Your task to perform on an android device: find snoozed emails in the gmail app Image 0: 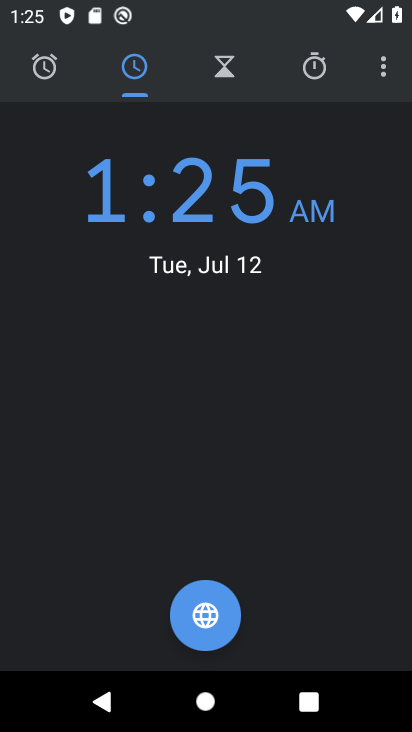
Step 0: press home button
Your task to perform on an android device: find snoozed emails in the gmail app Image 1: 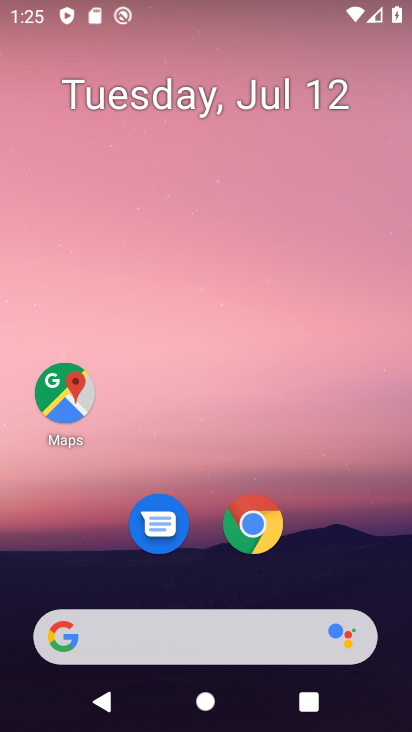
Step 1: drag from (303, 531) to (343, 44)
Your task to perform on an android device: find snoozed emails in the gmail app Image 2: 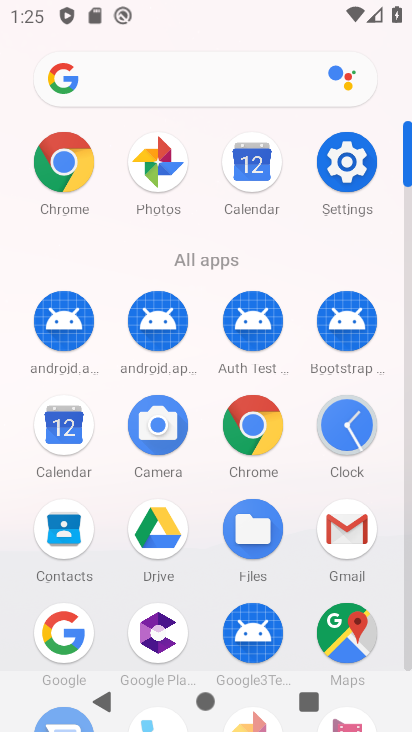
Step 2: click (344, 519)
Your task to perform on an android device: find snoozed emails in the gmail app Image 3: 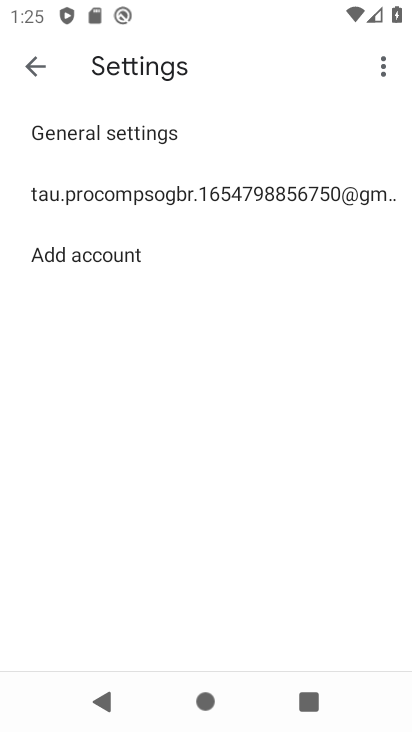
Step 3: click (38, 53)
Your task to perform on an android device: find snoozed emails in the gmail app Image 4: 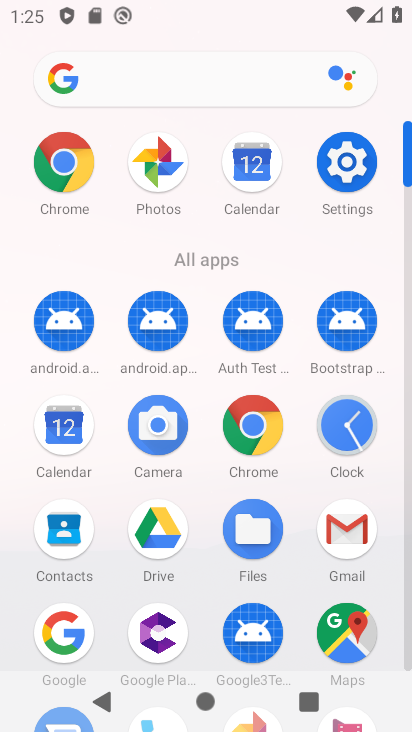
Step 4: click (336, 537)
Your task to perform on an android device: find snoozed emails in the gmail app Image 5: 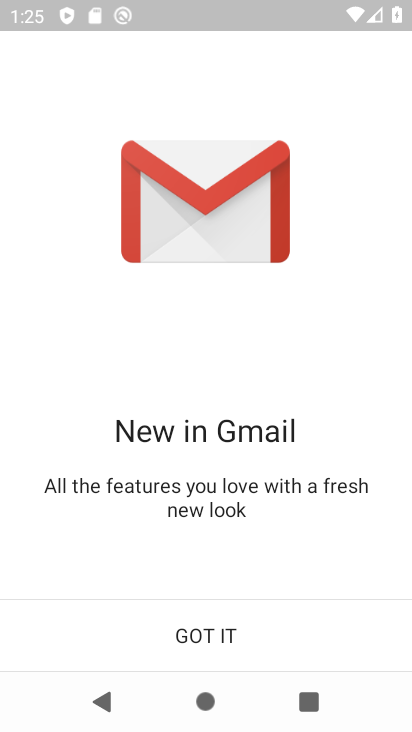
Step 5: click (266, 629)
Your task to perform on an android device: find snoozed emails in the gmail app Image 6: 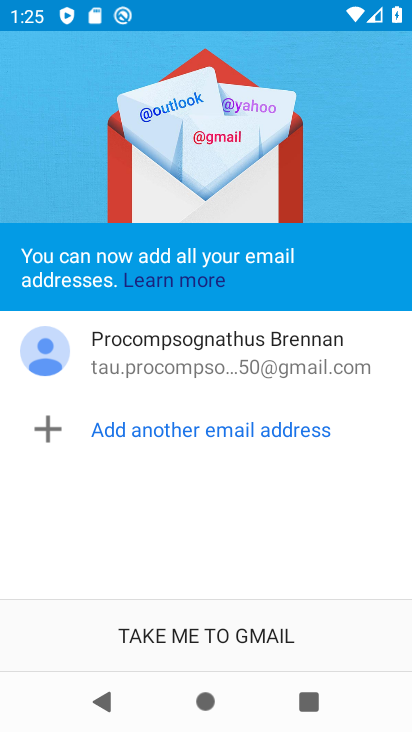
Step 6: click (266, 627)
Your task to perform on an android device: find snoozed emails in the gmail app Image 7: 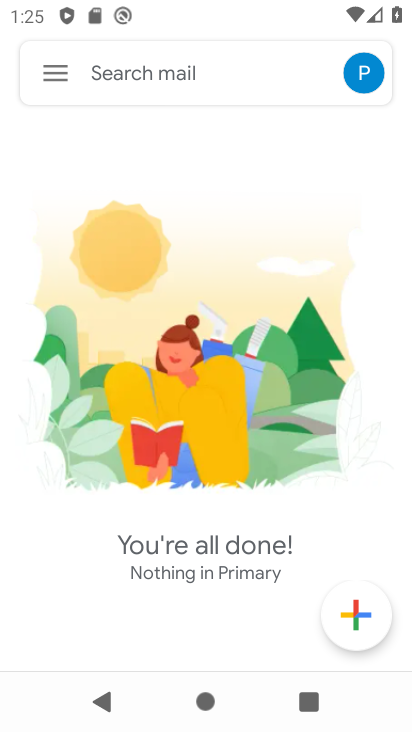
Step 7: click (64, 73)
Your task to perform on an android device: find snoozed emails in the gmail app Image 8: 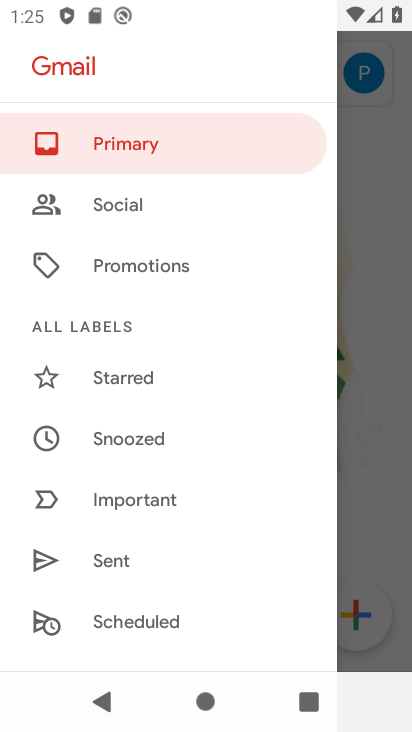
Step 8: click (148, 436)
Your task to perform on an android device: find snoozed emails in the gmail app Image 9: 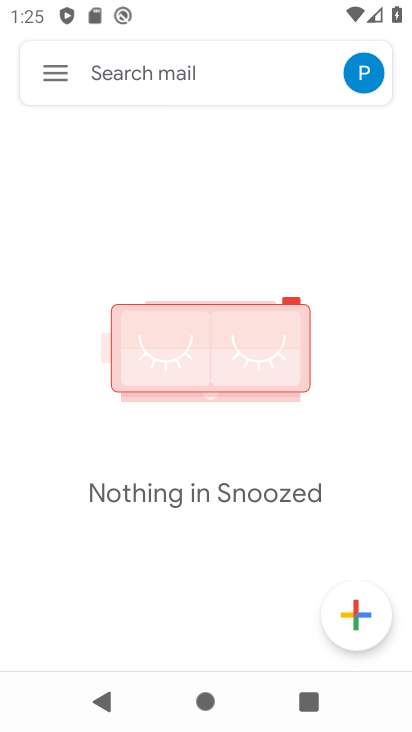
Step 9: task complete